Your task to perform on an android device: toggle sleep mode Image 0: 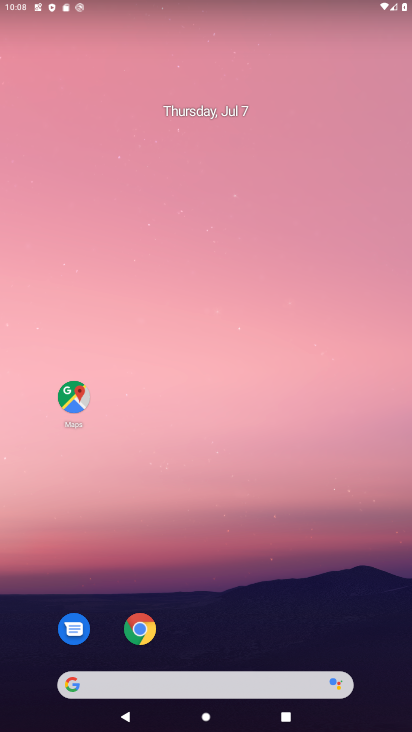
Step 0: click (144, 157)
Your task to perform on an android device: toggle sleep mode Image 1: 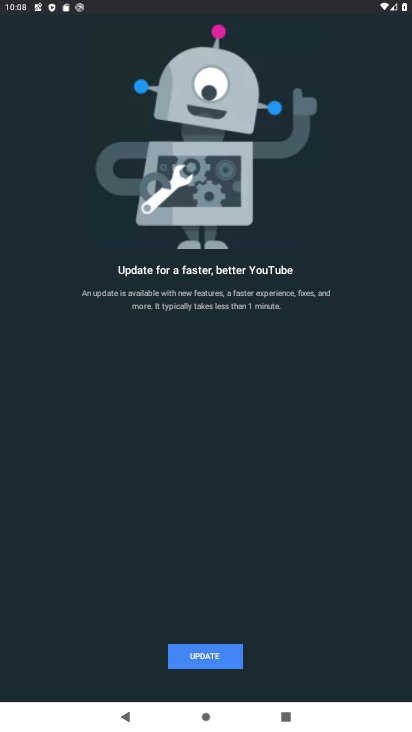
Step 1: press back button
Your task to perform on an android device: toggle sleep mode Image 2: 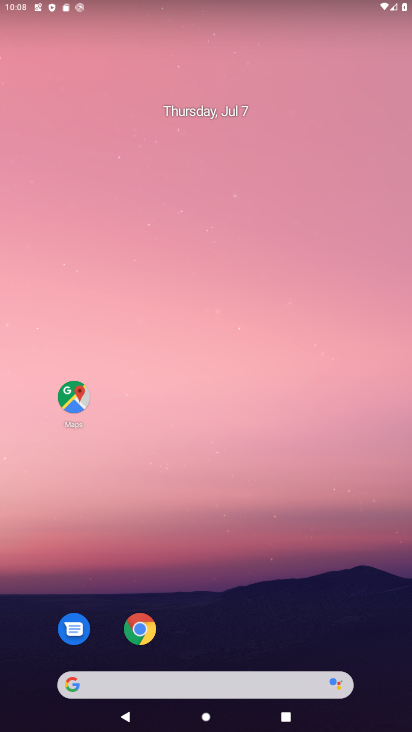
Step 2: drag from (217, 654) to (244, 62)
Your task to perform on an android device: toggle sleep mode Image 3: 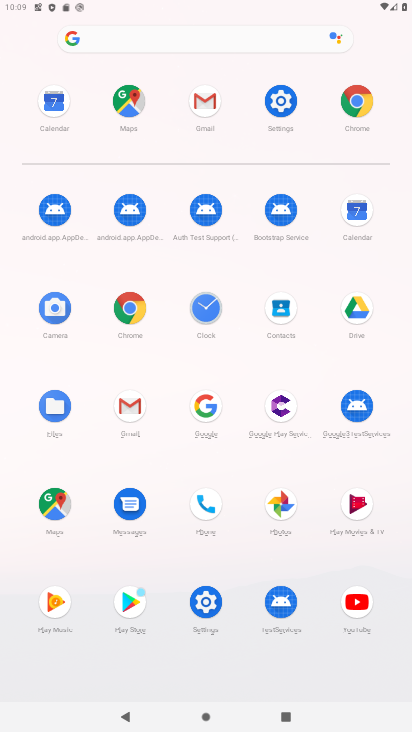
Step 3: click (281, 116)
Your task to perform on an android device: toggle sleep mode Image 4: 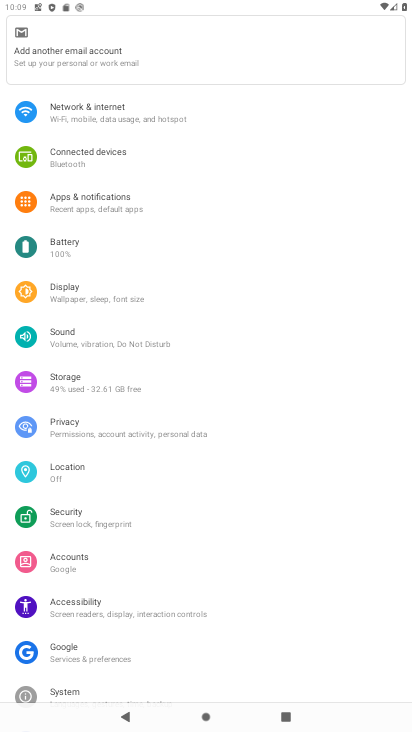
Step 4: click (64, 298)
Your task to perform on an android device: toggle sleep mode Image 5: 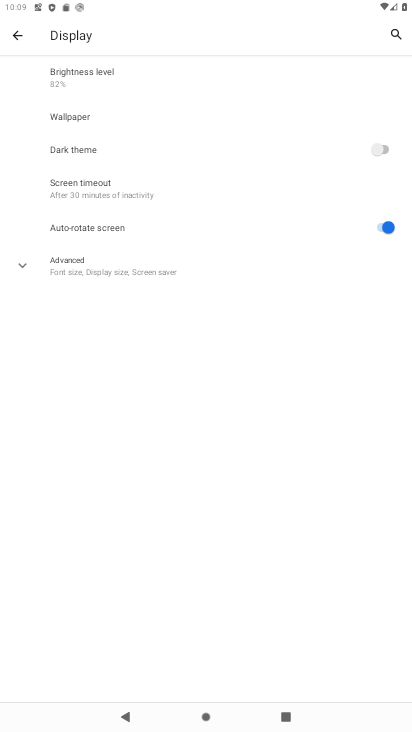
Step 5: click (53, 273)
Your task to perform on an android device: toggle sleep mode Image 6: 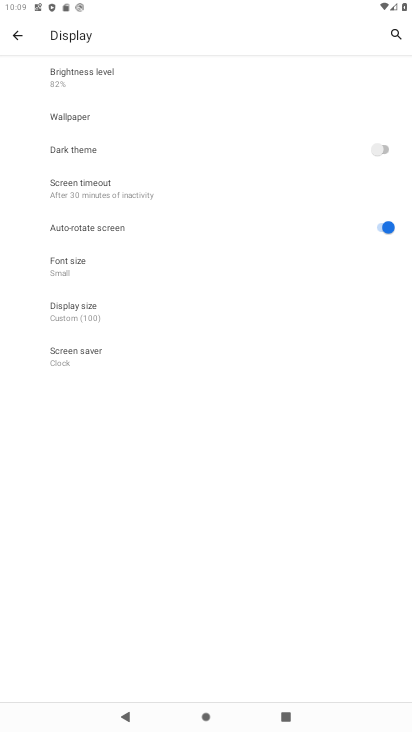
Step 6: task complete